Your task to perform on an android device: Set the phone to "Do not disturb". Image 0: 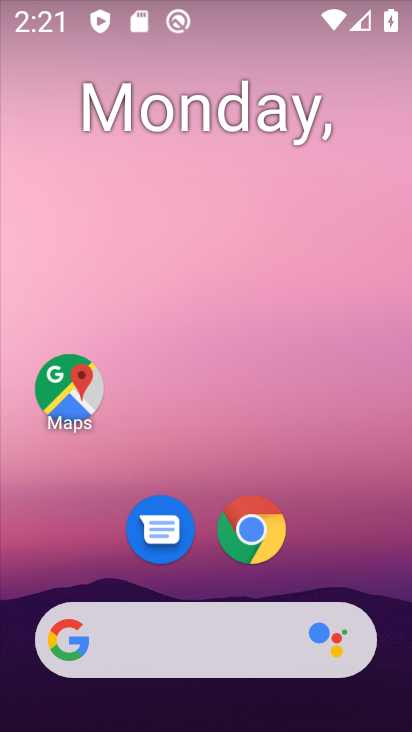
Step 0: drag from (77, 582) to (216, 119)
Your task to perform on an android device: Set the phone to "Do not disturb". Image 1: 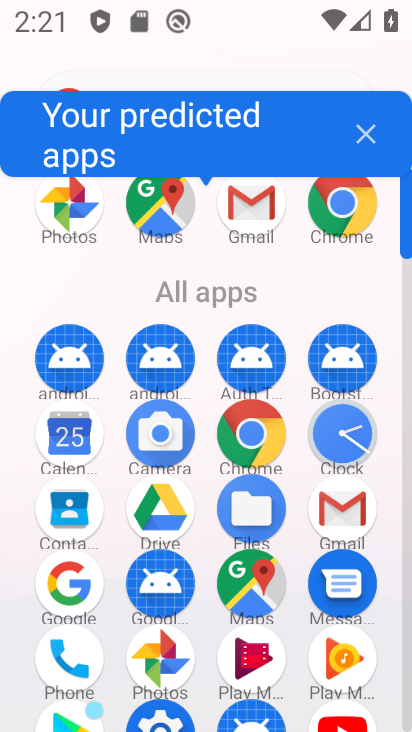
Step 1: drag from (149, 618) to (178, 469)
Your task to perform on an android device: Set the phone to "Do not disturb". Image 2: 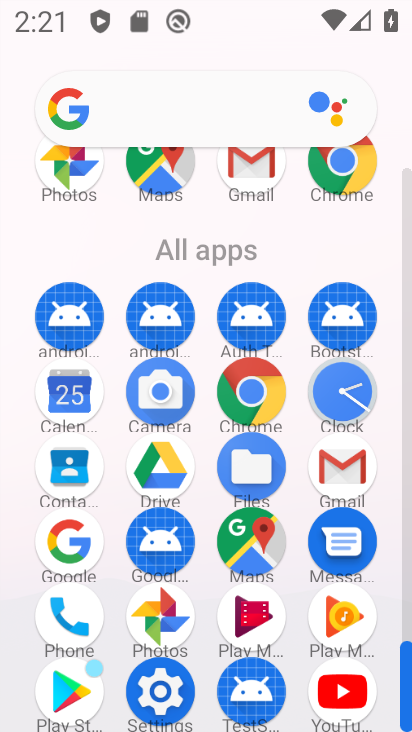
Step 2: click (145, 700)
Your task to perform on an android device: Set the phone to "Do not disturb". Image 3: 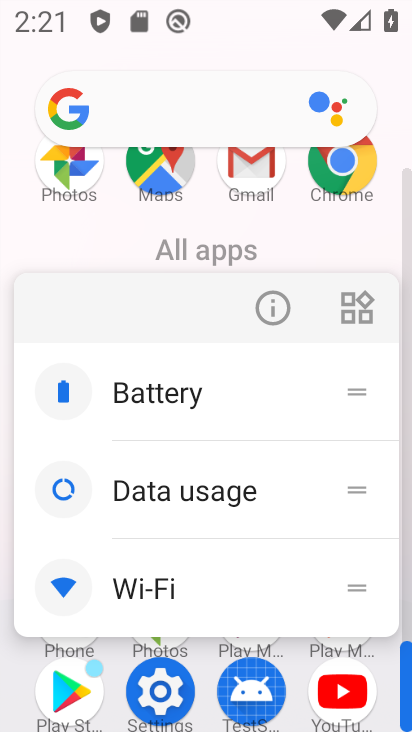
Step 3: click (157, 688)
Your task to perform on an android device: Set the phone to "Do not disturb". Image 4: 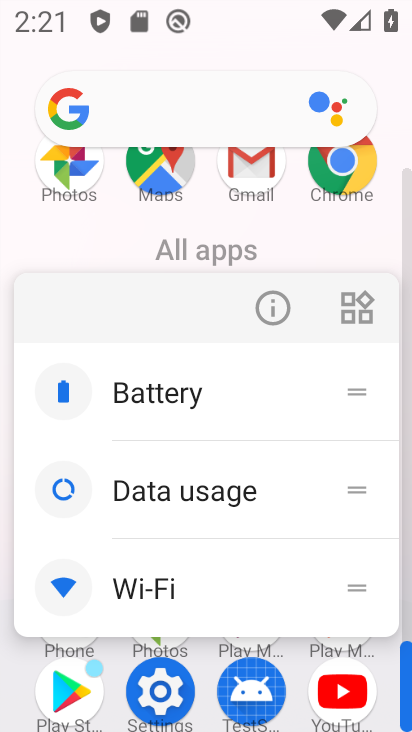
Step 4: click (157, 688)
Your task to perform on an android device: Set the phone to "Do not disturb". Image 5: 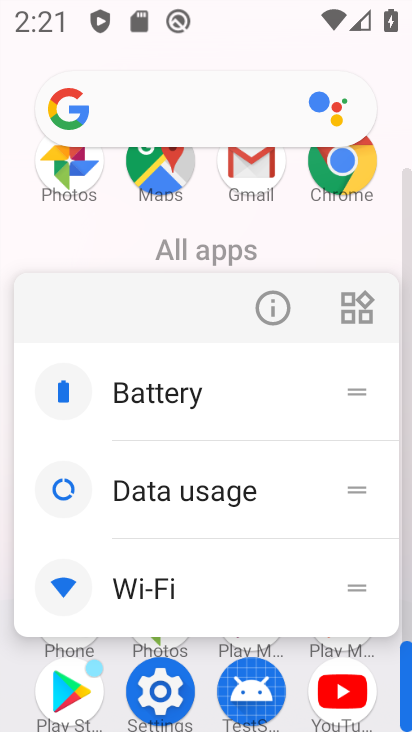
Step 5: click (157, 694)
Your task to perform on an android device: Set the phone to "Do not disturb". Image 6: 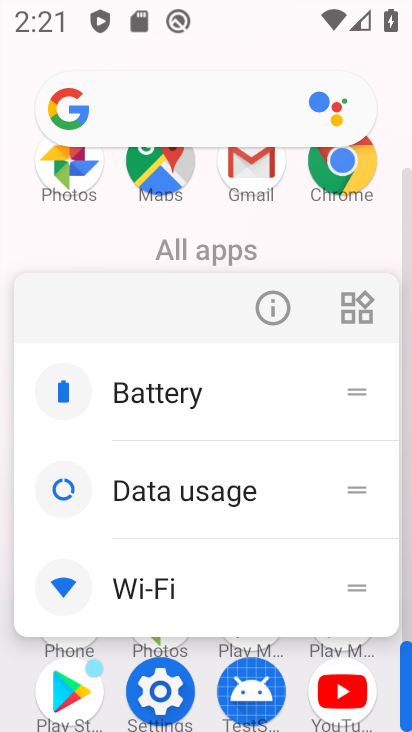
Step 6: click (178, 695)
Your task to perform on an android device: Set the phone to "Do not disturb". Image 7: 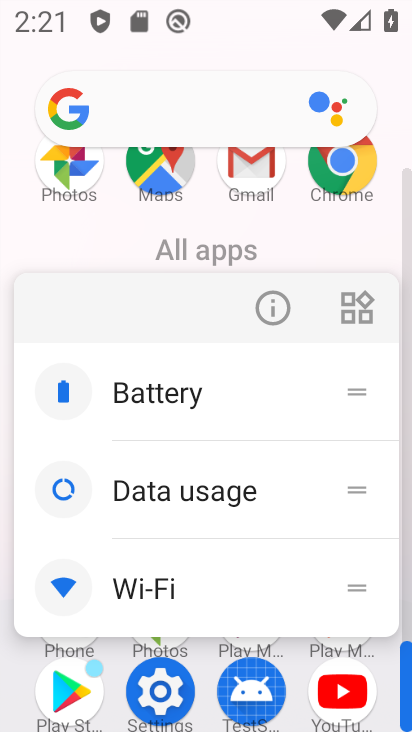
Step 7: click (175, 693)
Your task to perform on an android device: Set the phone to "Do not disturb". Image 8: 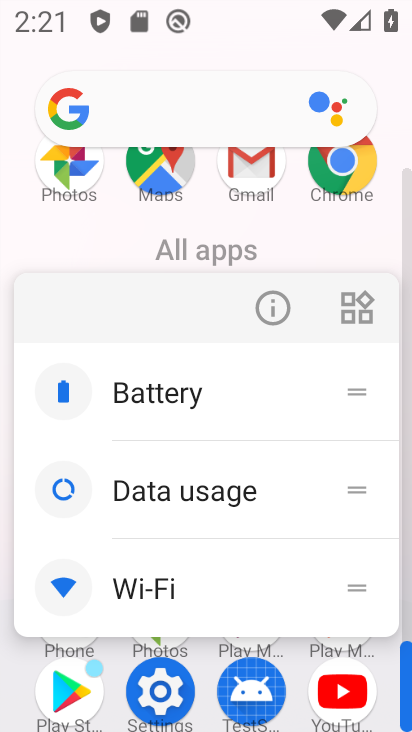
Step 8: click (168, 690)
Your task to perform on an android device: Set the phone to "Do not disturb". Image 9: 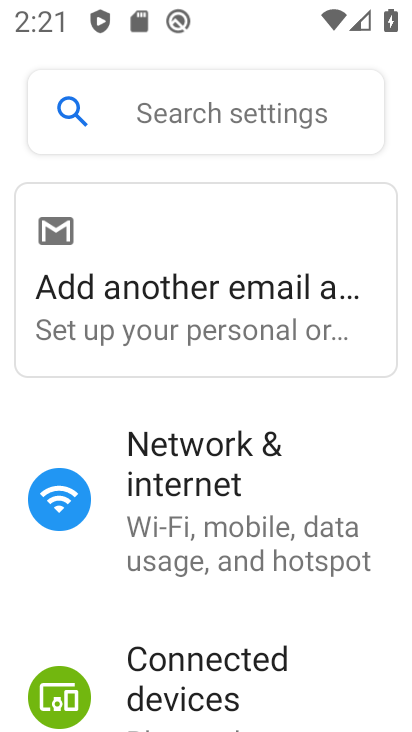
Step 9: drag from (165, 705) to (299, 195)
Your task to perform on an android device: Set the phone to "Do not disturb". Image 10: 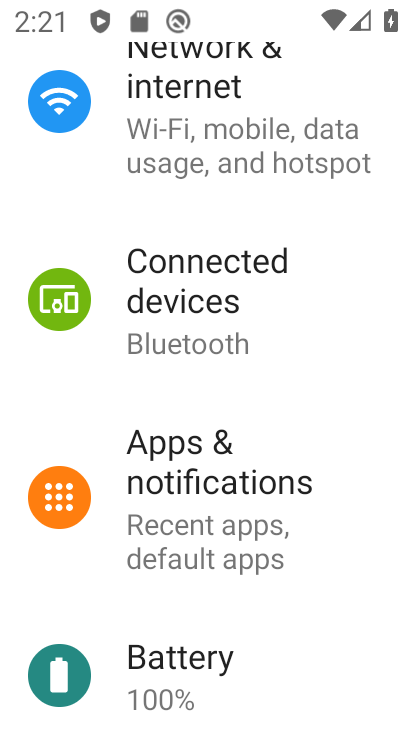
Step 10: click (221, 496)
Your task to perform on an android device: Set the phone to "Do not disturb". Image 11: 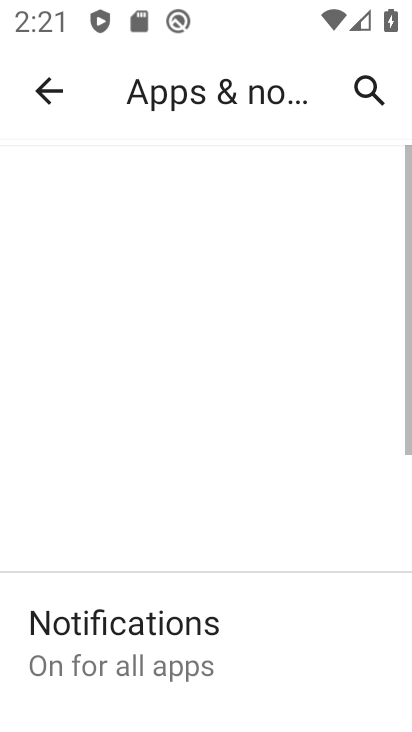
Step 11: drag from (117, 662) to (193, 286)
Your task to perform on an android device: Set the phone to "Do not disturb". Image 12: 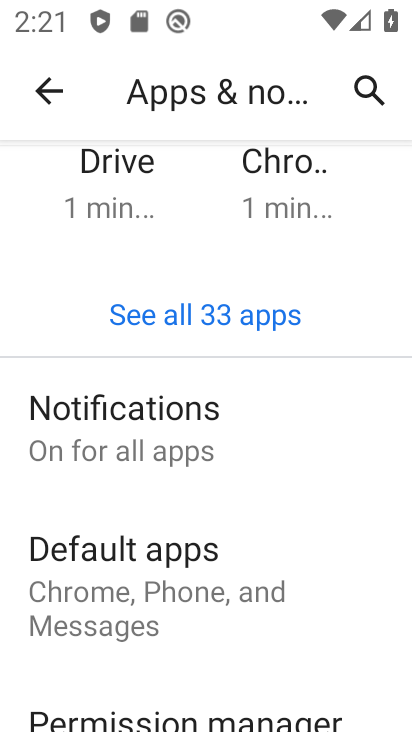
Step 12: click (141, 434)
Your task to perform on an android device: Set the phone to "Do not disturb". Image 13: 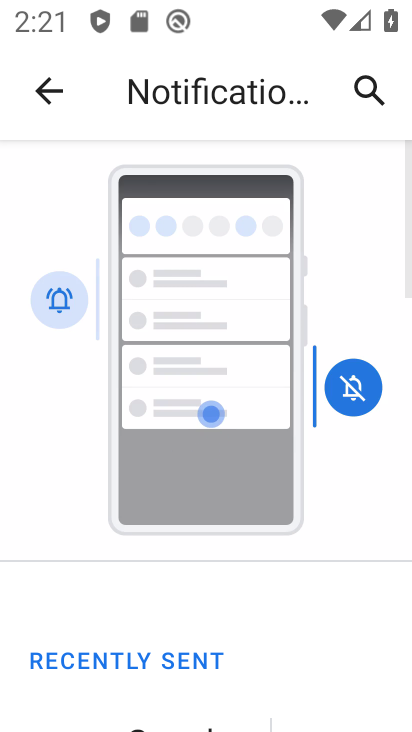
Step 13: drag from (201, 610) to (316, 163)
Your task to perform on an android device: Set the phone to "Do not disturb". Image 14: 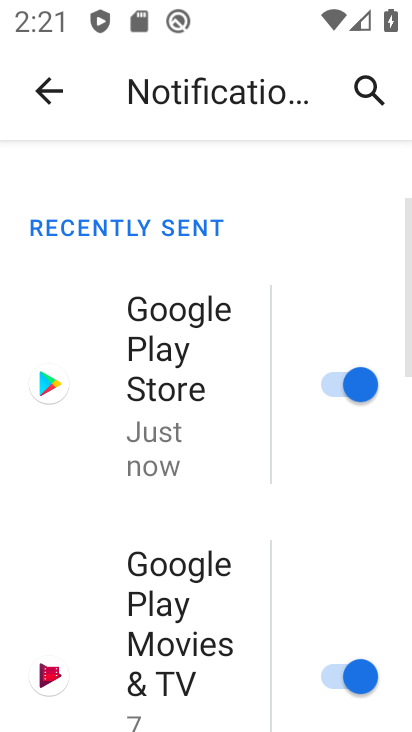
Step 14: drag from (193, 549) to (338, 154)
Your task to perform on an android device: Set the phone to "Do not disturb". Image 15: 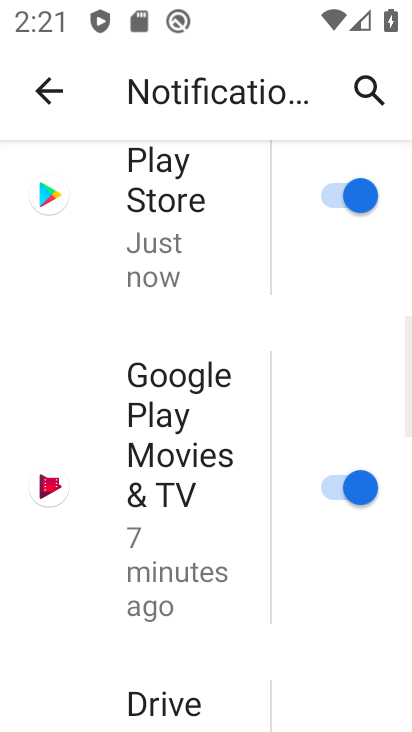
Step 15: drag from (162, 604) to (288, 156)
Your task to perform on an android device: Set the phone to "Do not disturb". Image 16: 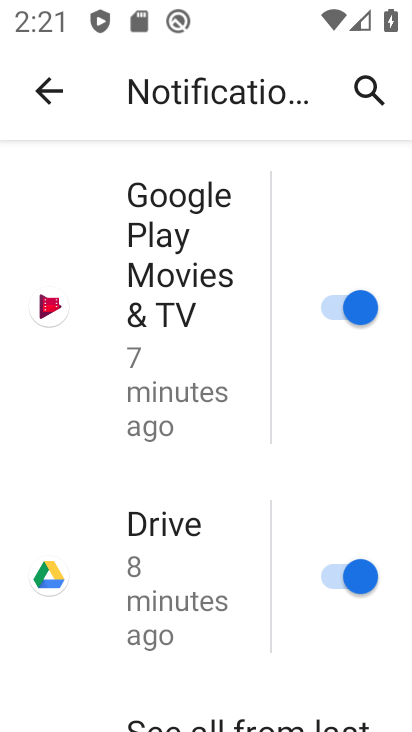
Step 16: drag from (159, 584) to (263, 155)
Your task to perform on an android device: Set the phone to "Do not disturb". Image 17: 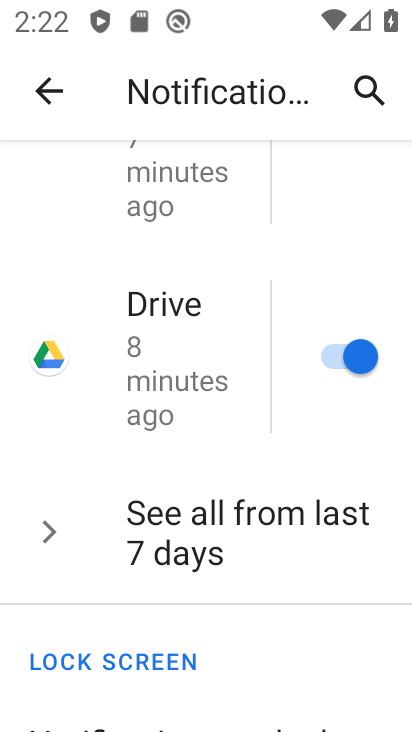
Step 17: drag from (167, 667) to (296, 108)
Your task to perform on an android device: Set the phone to "Do not disturb". Image 18: 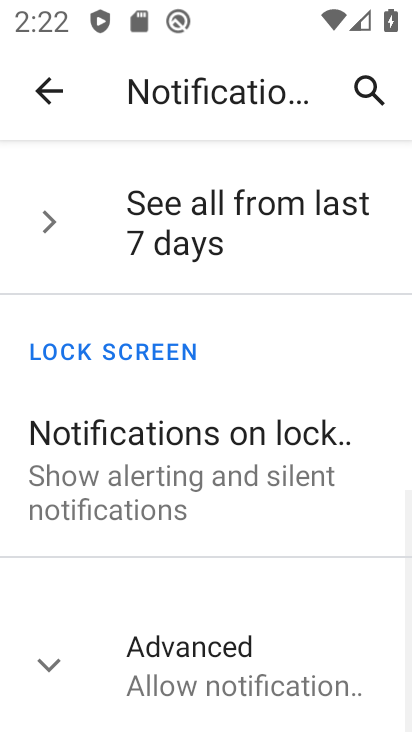
Step 18: click (248, 681)
Your task to perform on an android device: Set the phone to "Do not disturb". Image 19: 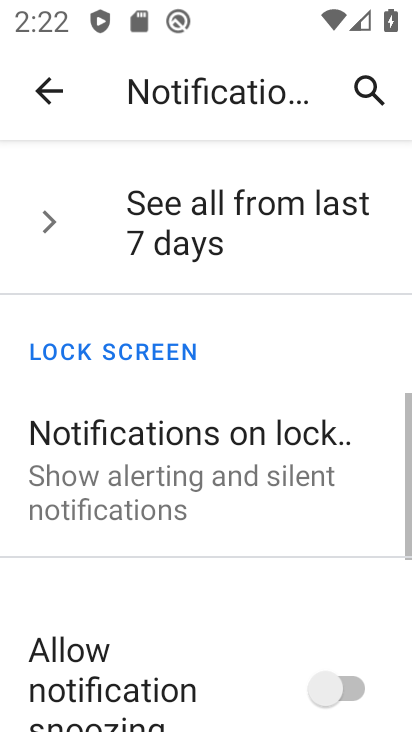
Step 19: drag from (221, 668) to (339, 199)
Your task to perform on an android device: Set the phone to "Do not disturb". Image 20: 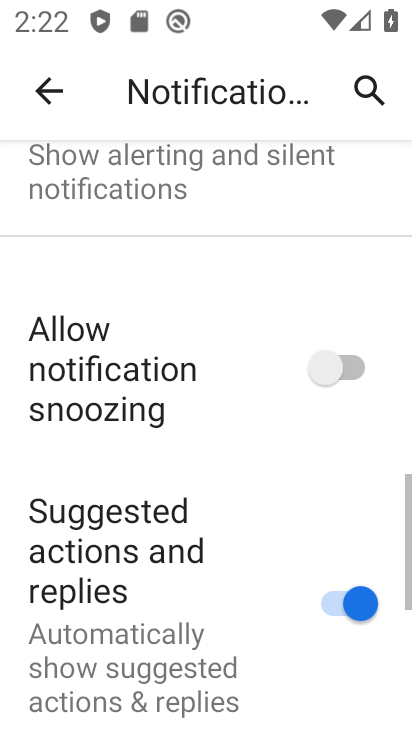
Step 20: drag from (186, 651) to (314, 209)
Your task to perform on an android device: Set the phone to "Do not disturb". Image 21: 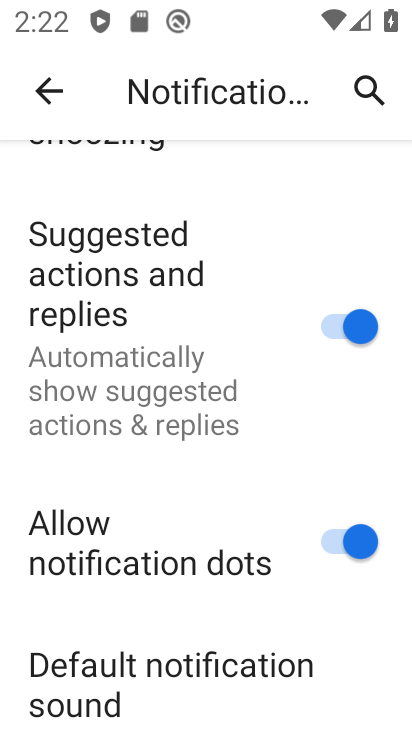
Step 21: drag from (148, 566) to (234, 231)
Your task to perform on an android device: Set the phone to "Do not disturb". Image 22: 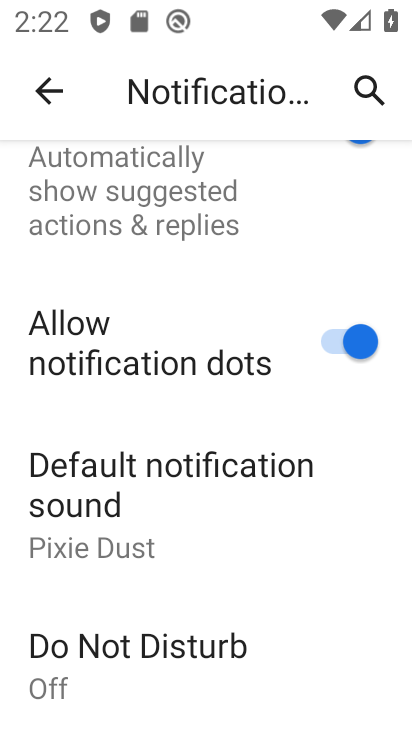
Step 22: click (197, 654)
Your task to perform on an android device: Set the phone to "Do not disturb". Image 23: 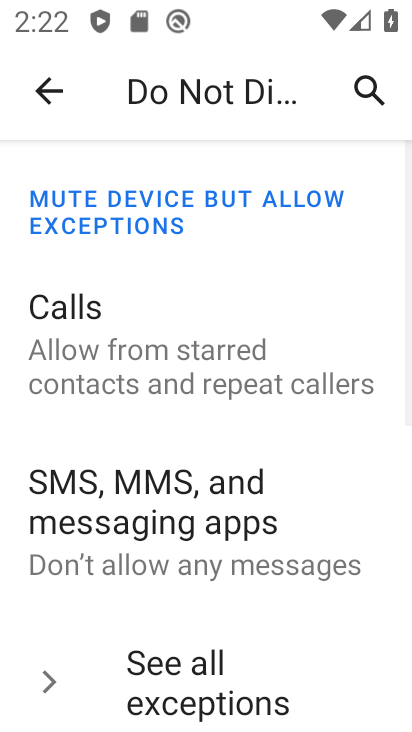
Step 23: drag from (92, 678) to (283, 64)
Your task to perform on an android device: Set the phone to "Do not disturb". Image 24: 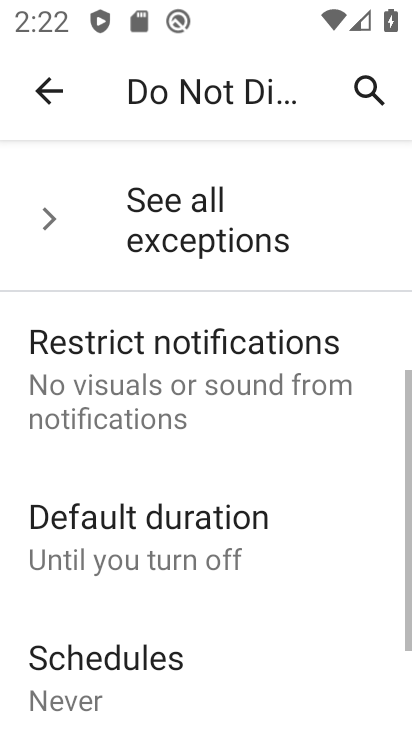
Step 24: drag from (99, 658) to (224, 129)
Your task to perform on an android device: Set the phone to "Do not disturb". Image 25: 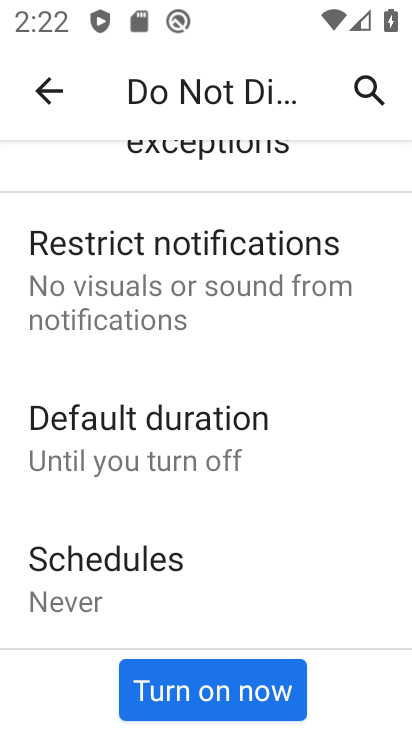
Step 25: click (242, 710)
Your task to perform on an android device: Set the phone to "Do not disturb". Image 26: 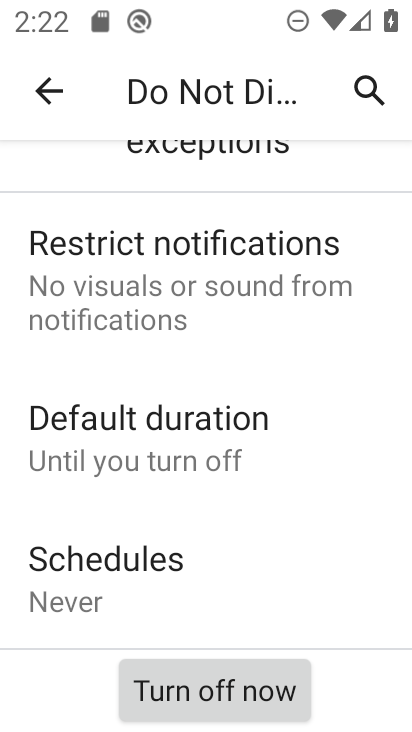
Step 26: task complete